Your task to perform on an android device: Open the phone app and click the voicemail tab. Image 0: 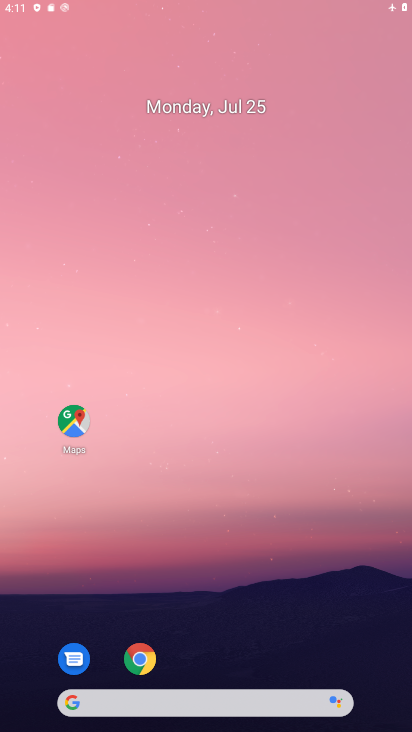
Step 0: click (249, 173)
Your task to perform on an android device: Open the phone app and click the voicemail tab. Image 1: 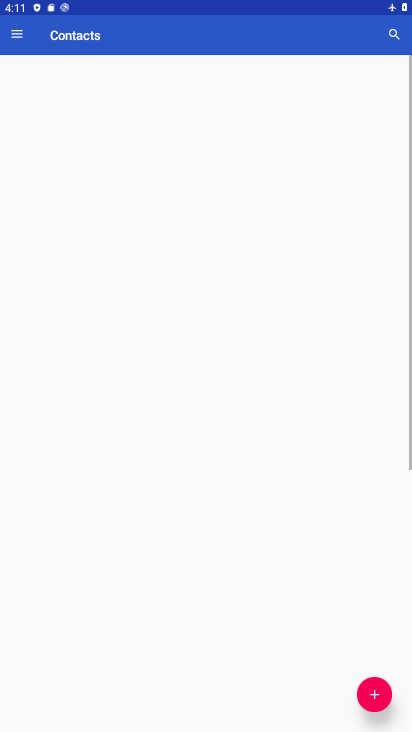
Step 1: drag from (192, 519) to (185, 209)
Your task to perform on an android device: Open the phone app and click the voicemail tab. Image 2: 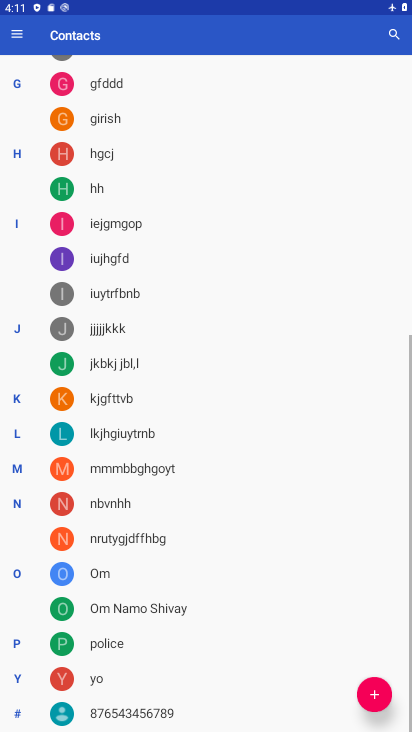
Step 2: drag from (277, 571) to (235, 319)
Your task to perform on an android device: Open the phone app and click the voicemail tab. Image 3: 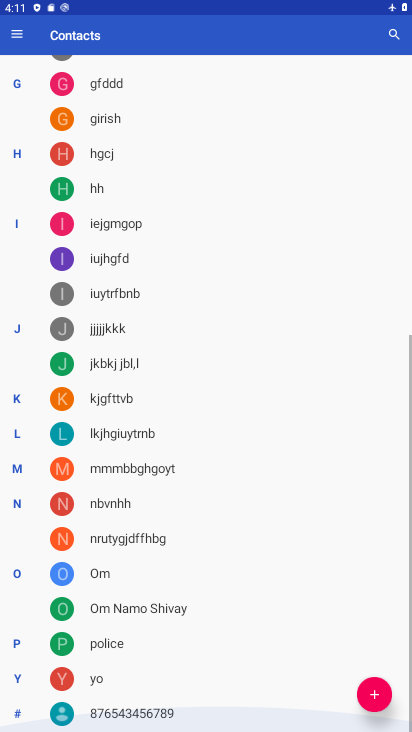
Step 3: press back button
Your task to perform on an android device: Open the phone app and click the voicemail tab. Image 4: 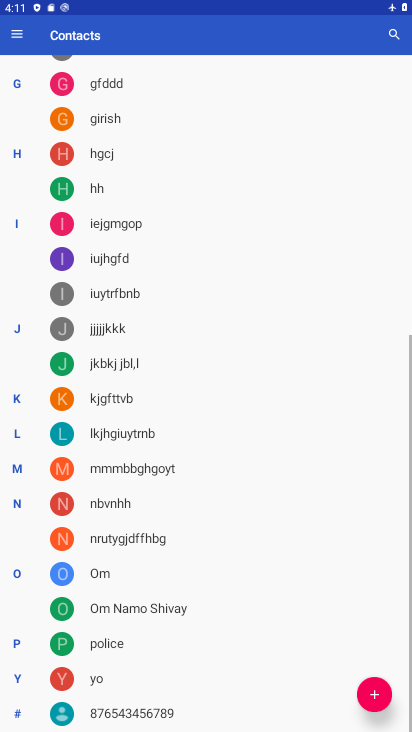
Step 4: press back button
Your task to perform on an android device: Open the phone app and click the voicemail tab. Image 5: 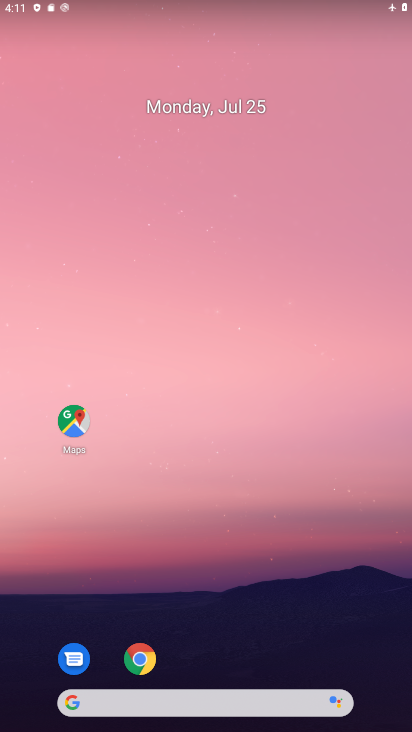
Step 5: drag from (254, 689) to (203, 177)
Your task to perform on an android device: Open the phone app and click the voicemail tab. Image 6: 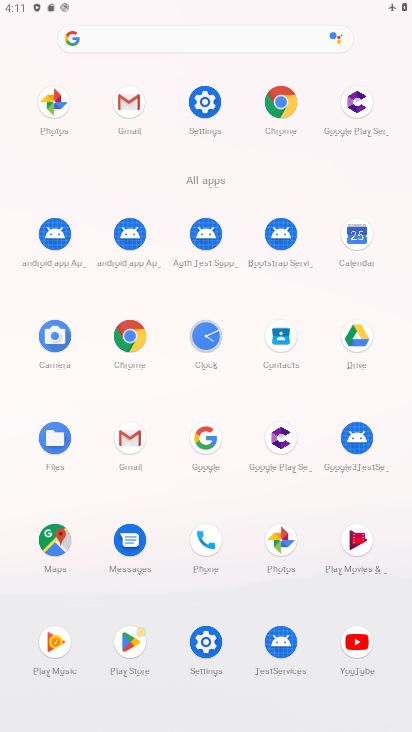
Step 6: click (207, 544)
Your task to perform on an android device: Open the phone app and click the voicemail tab. Image 7: 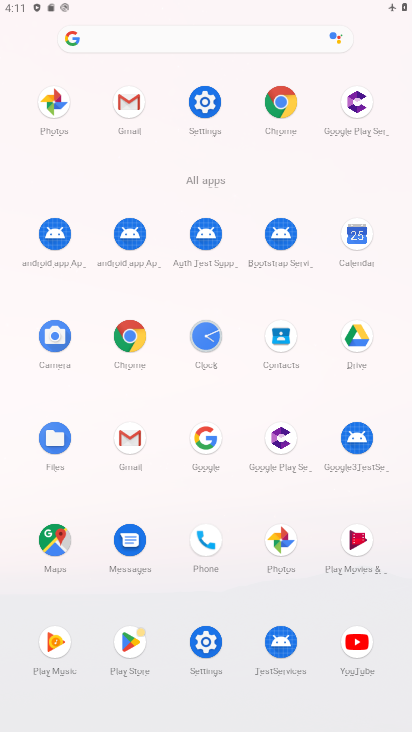
Step 7: click (207, 542)
Your task to perform on an android device: Open the phone app and click the voicemail tab. Image 8: 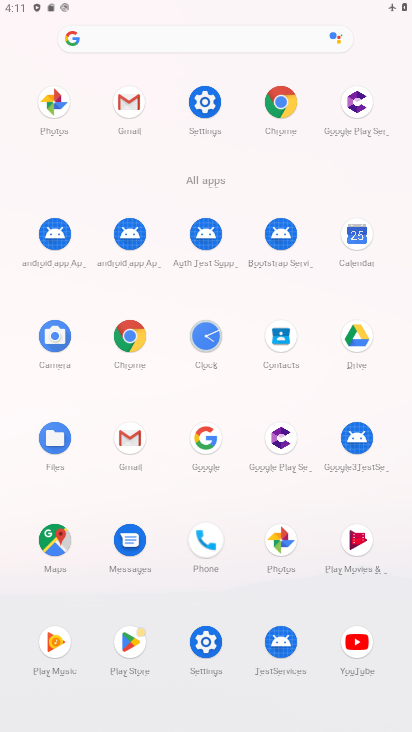
Step 8: click (207, 542)
Your task to perform on an android device: Open the phone app and click the voicemail tab. Image 9: 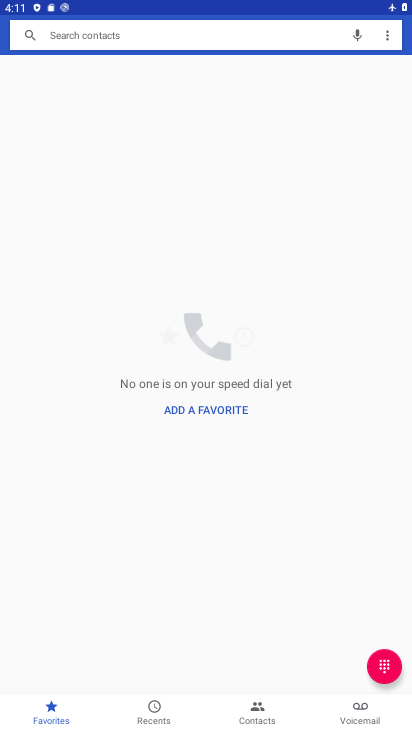
Step 9: click (376, 701)
Your task to perform on an android device: Open the phone app and click the voicemail tab. Image 10: 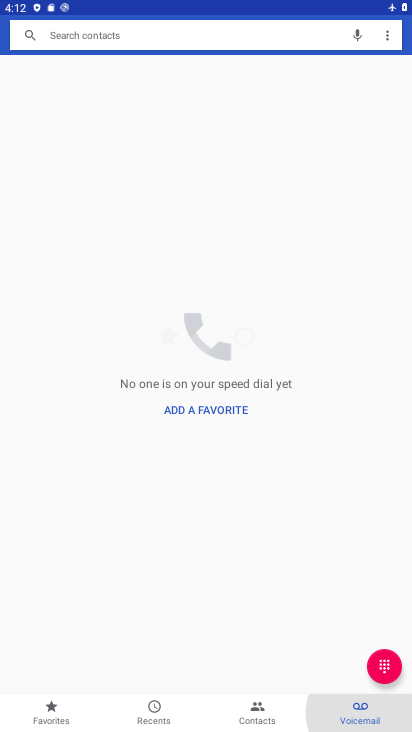
Step 10: click (375, 708)
Your task to perform on an android device: Open the phone app and click the voicemail tab. Image 11: 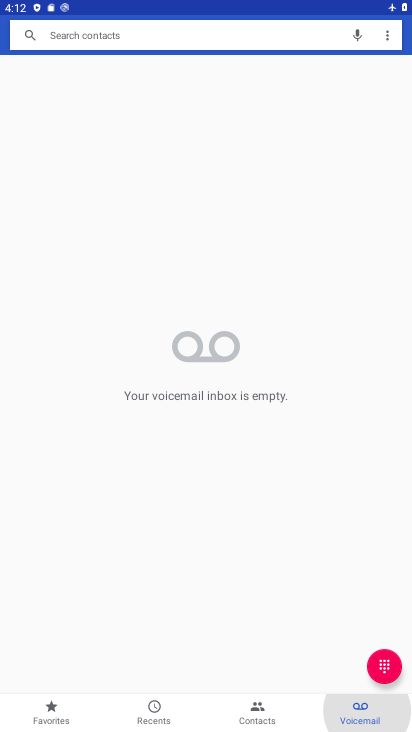
Step 11: click (375, 708)
Your task to perform on an android device: Open the phone app and click the voicemail tab. Image 12: 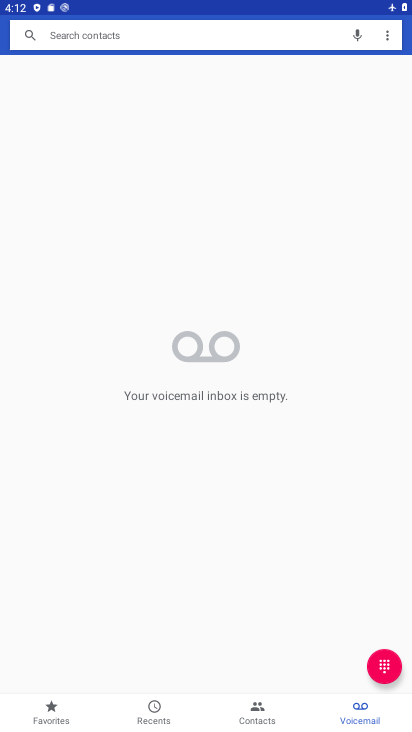
Step 12: task complete